Your task to perform on an android device: Turn on the flashlight Image 0: 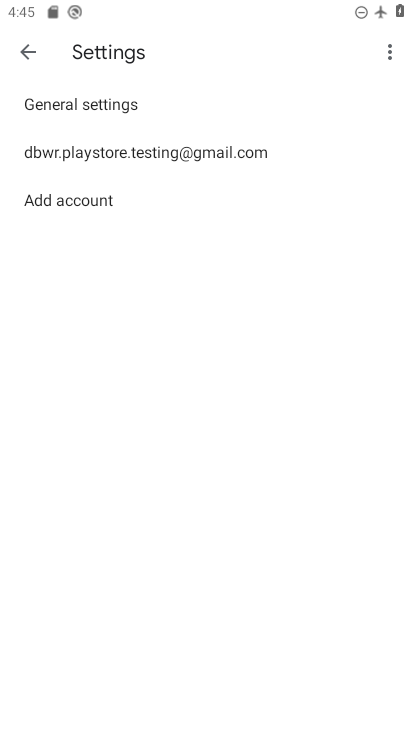
Step 0: press home button
Your task to perform on an android device: Turn on the flashlight Image 1: 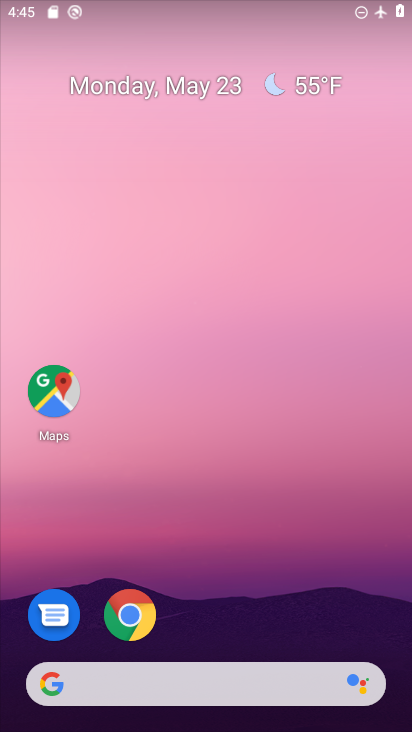
Step 1: drag from (287, 0) to (289, 403)
Your task to perform on an android device: Turn on the flashlight Image 2: 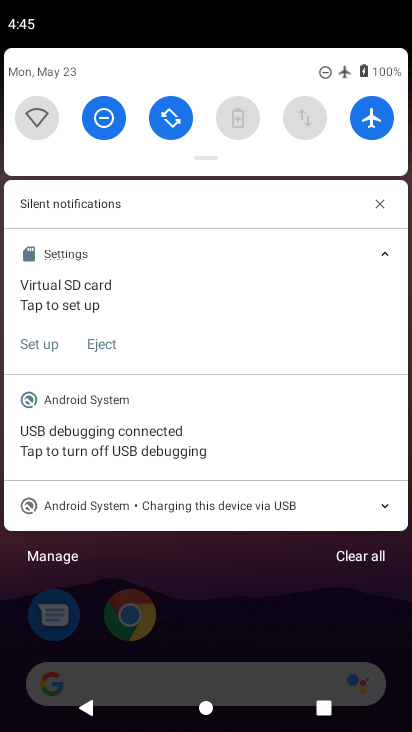
Step 2: drag from (262, 71) to (271, 437)
Your task to perform on an android device: Turn on the flashlight Image 3: 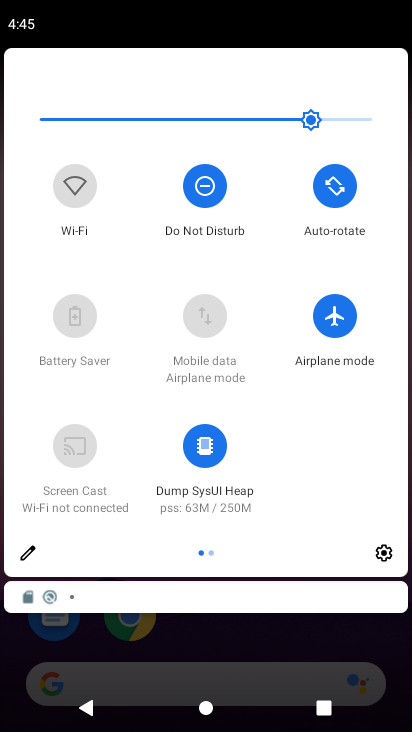
Step 3: click (24, 555)
Your task to perform on an android device: Turn on the flashlight Image 4: 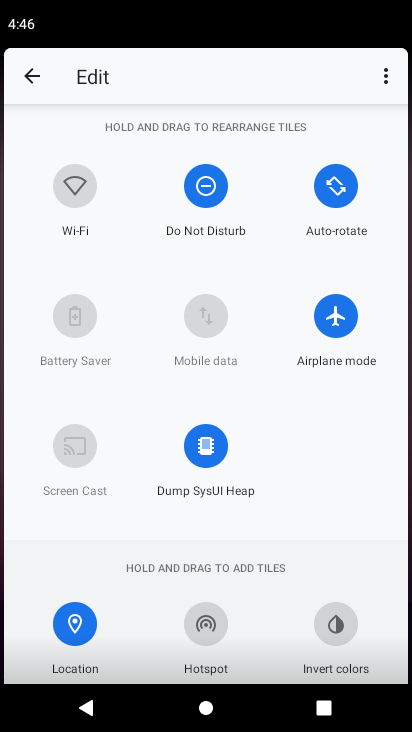
Step 4: task complete